Your task to perform on an android device: open app "Spotify" Image 0: 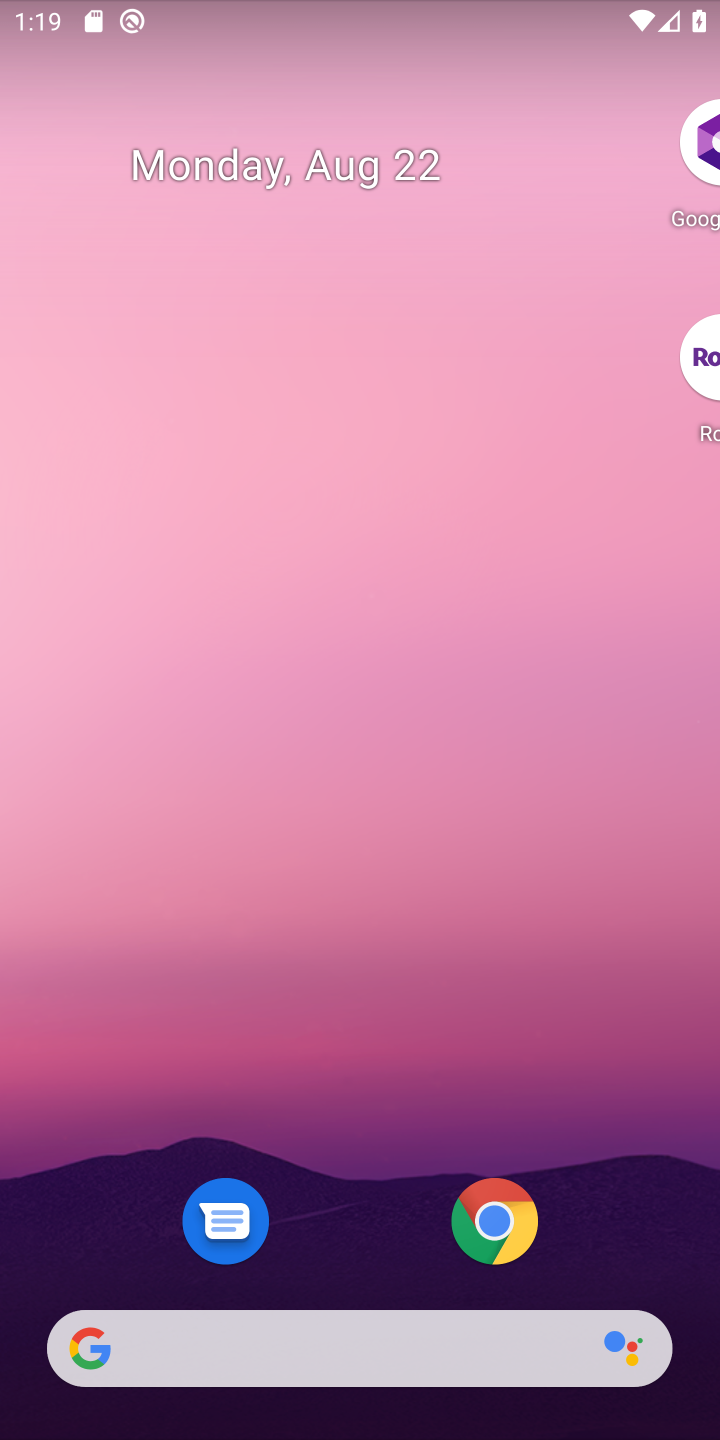
Step 0: press home button
Your task to perform on an android device: open app "Spotify" Image 1: 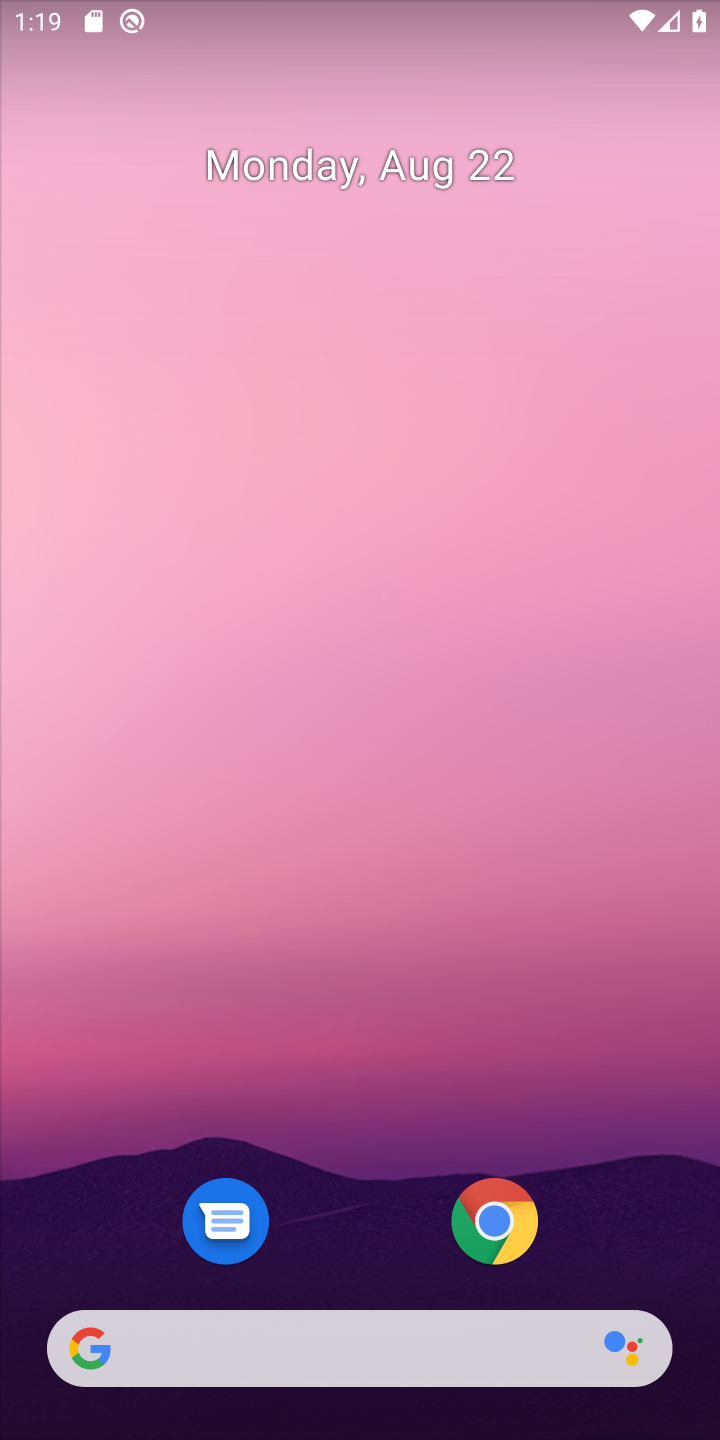
Step 1: drag from (382, 1286) to (378, 84)
Your task to perform on an android device: open app "Spotify" Image 2: 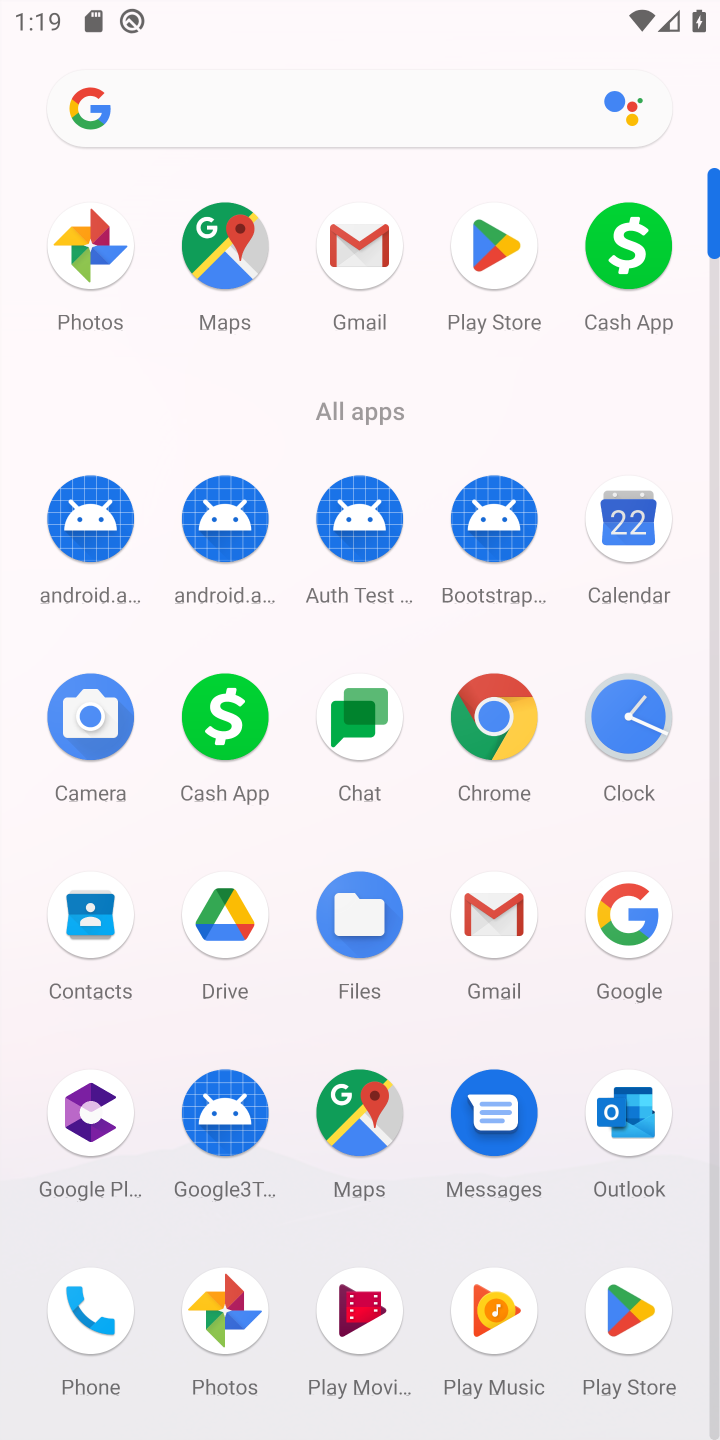
Step 2: click (493, 241)
Your task to perform on an android device: open app "Spotify" Image 3: 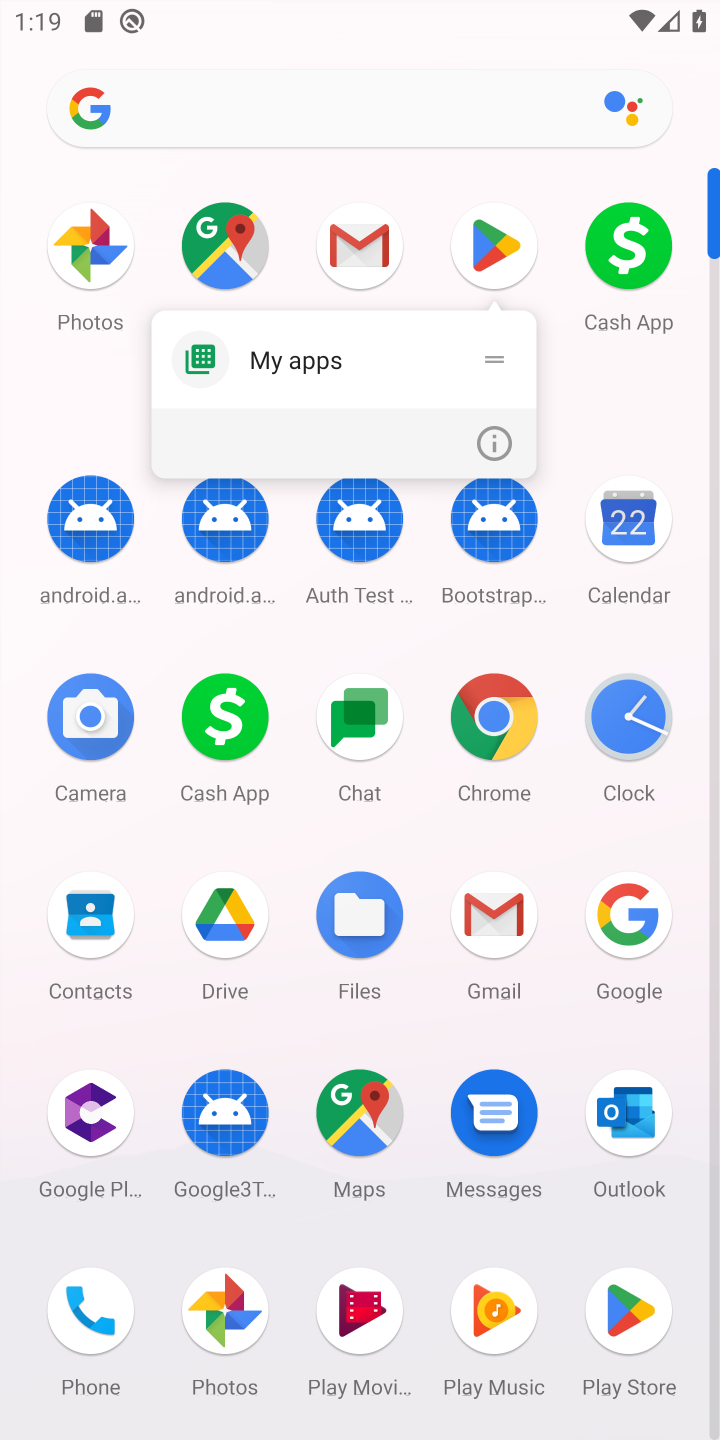
Step 3: click (490, 238)
Your task to perform on an android device: open app "Spotify" Image 4: 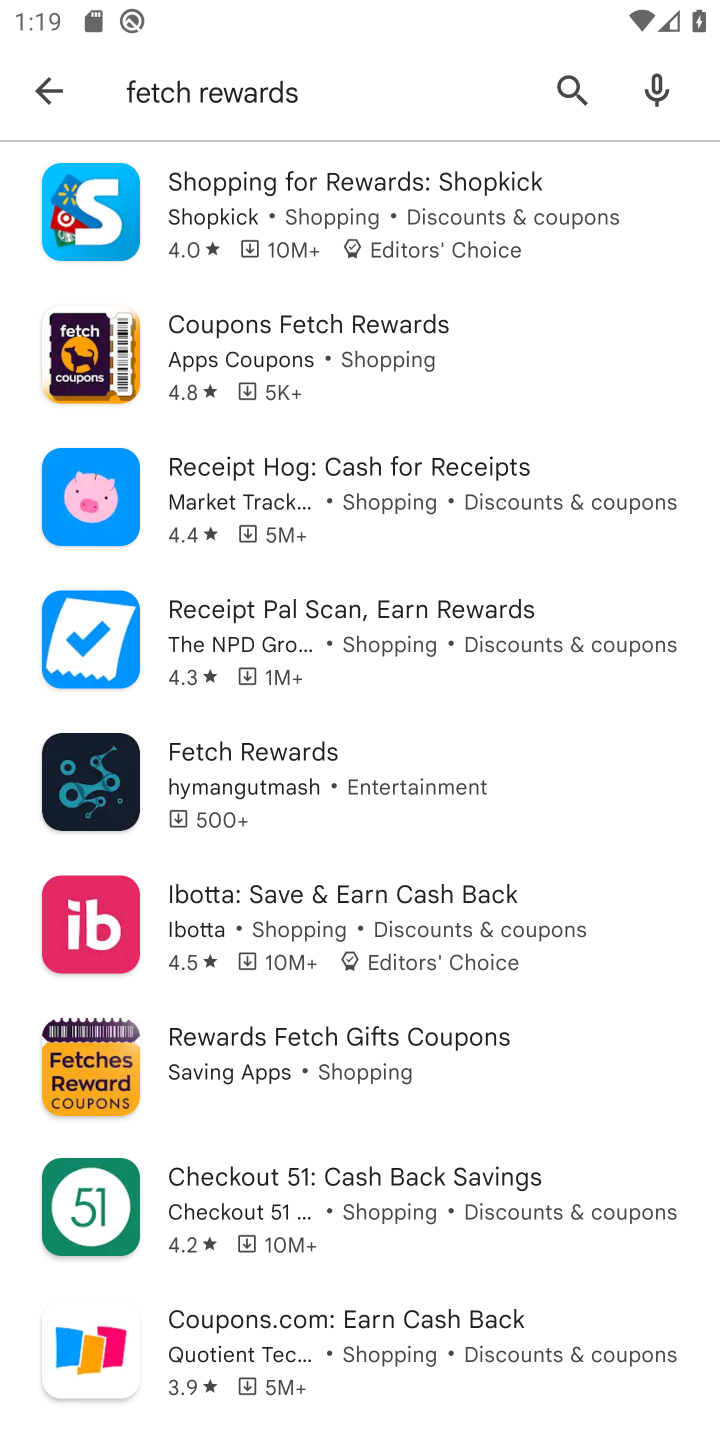
Step 4: click (569, 92)
Your task to perform on an android device: open app "Spotify" Image 5: 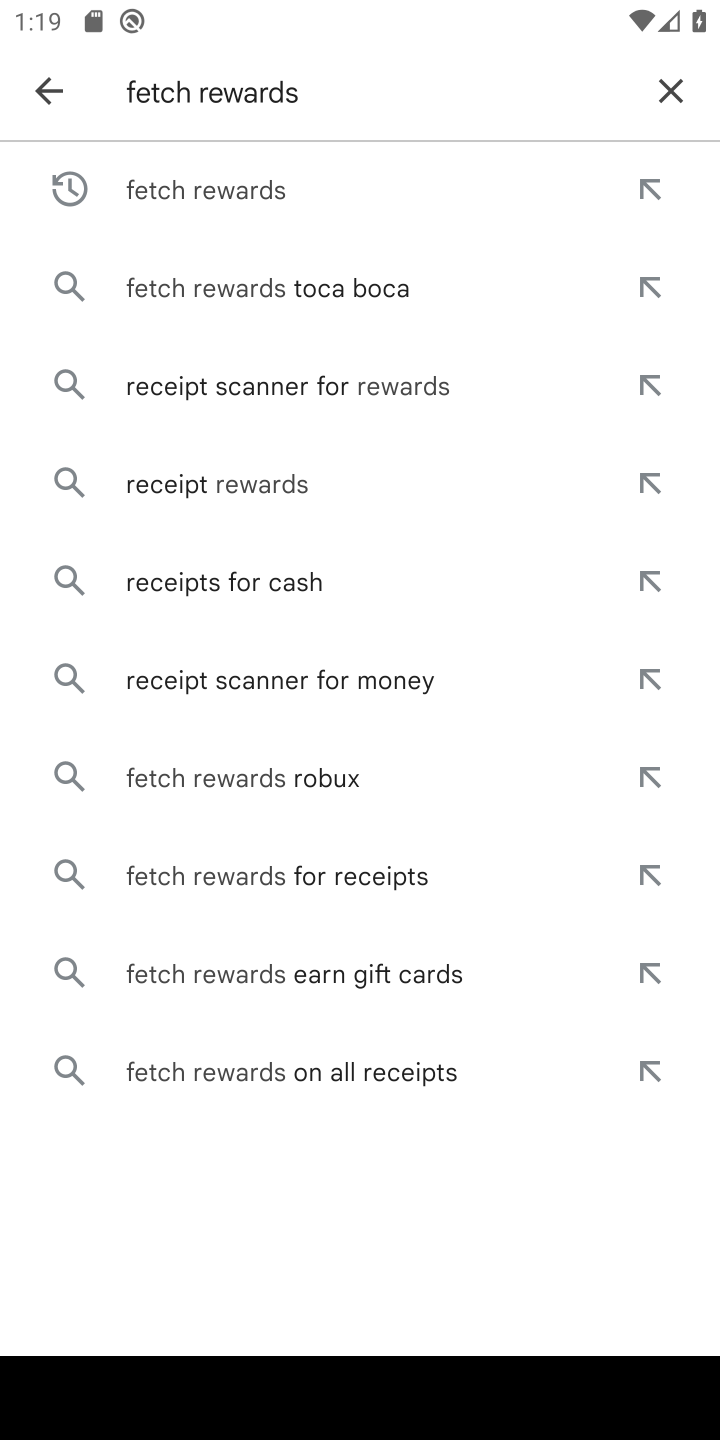
Step 5: click (664, 96)
Your task to perform on an android device: open app "Spotify" Image 6: 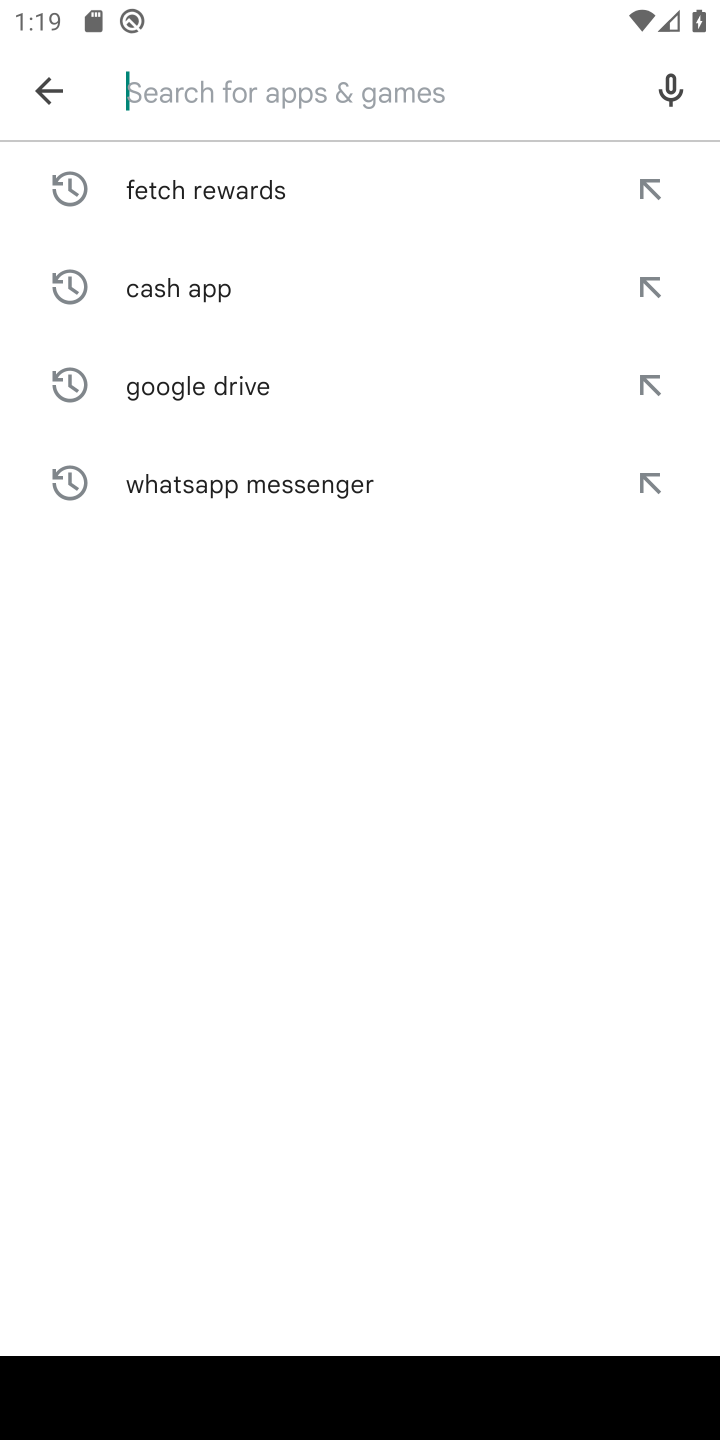
Step 6: type "spotify"
Your task to perform on an android device: open app "Spotify" Image 7: 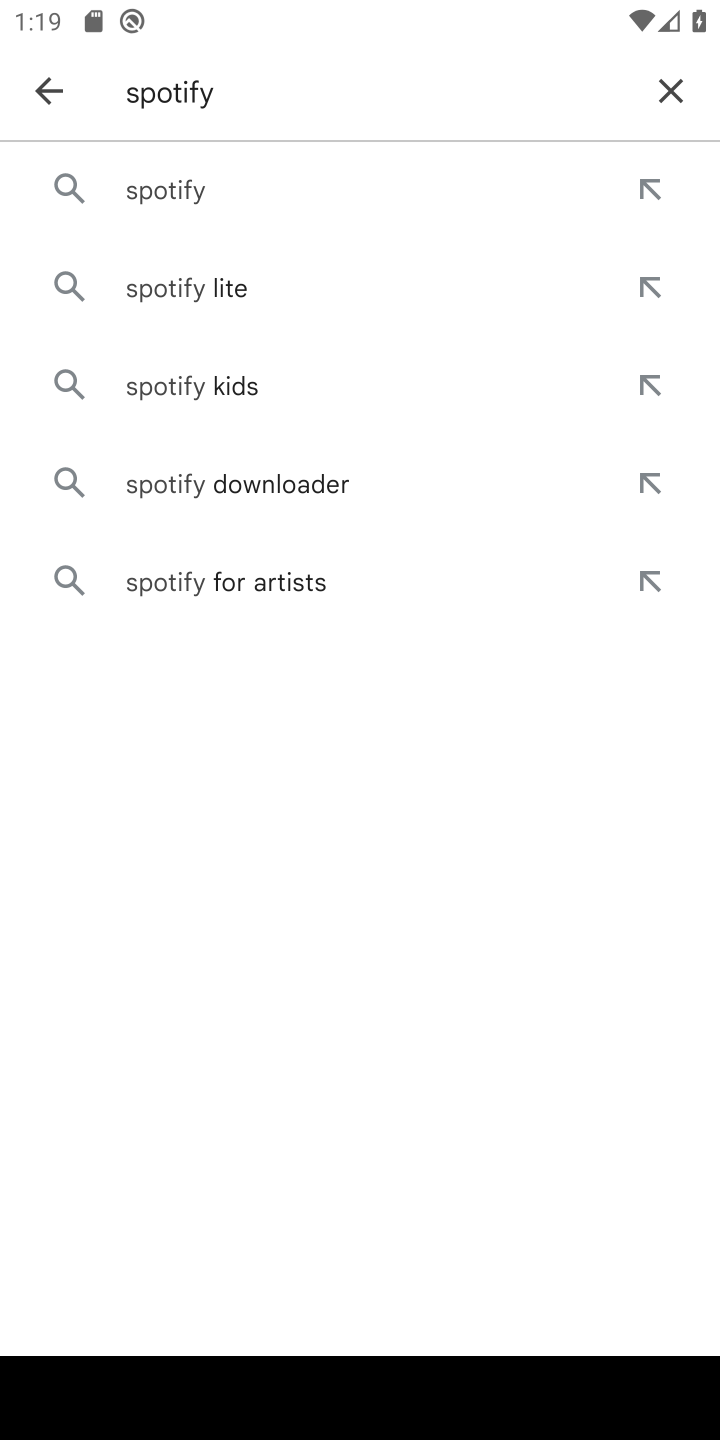
Step 7: click (226, 190)
Your task to perform on an android device: open app "Spotify" Image 8: 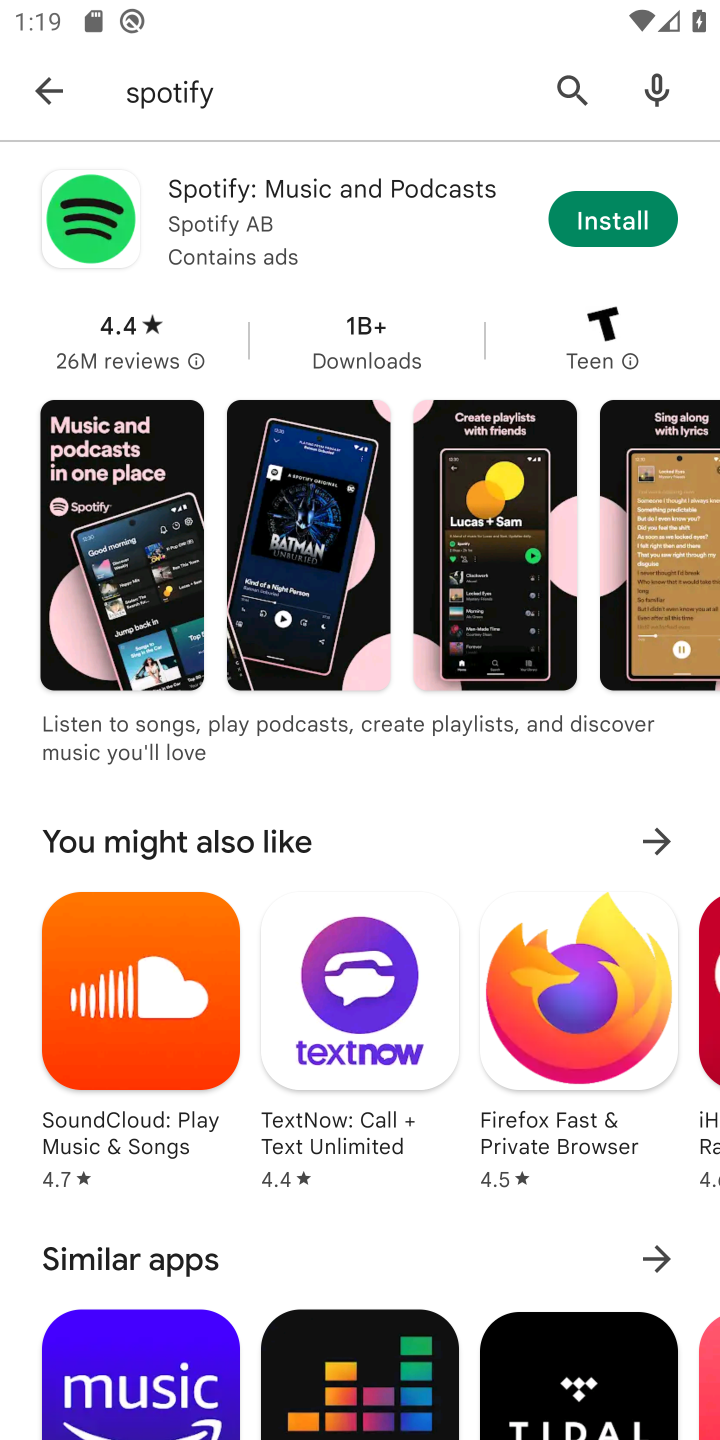
Step 8: task complete